Your task to perform on an android device: What is the recent news? Image 0: 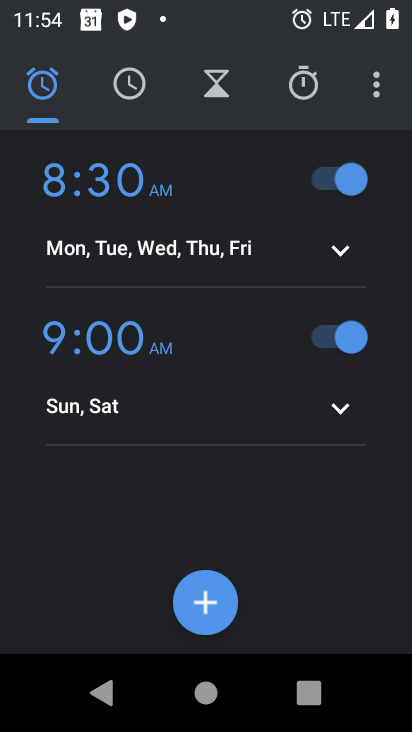
Step 0: press back button
Your task to perform on an android device: What is the recent news? Image 1: 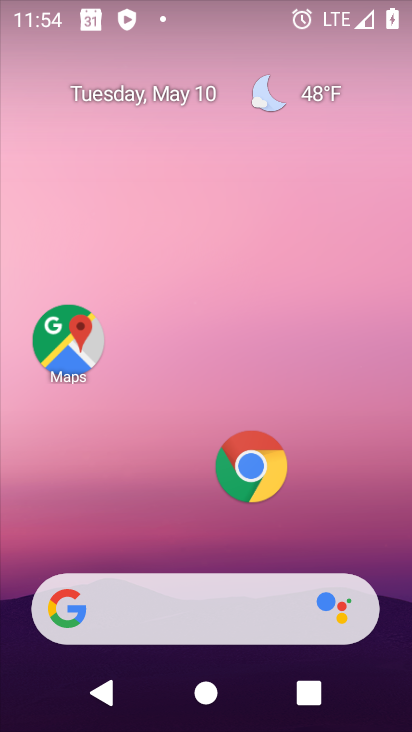
Step 1: drag from (121, 511) to (254, 58)
Your task to perform on an android device: What is the recent news? Image 2: 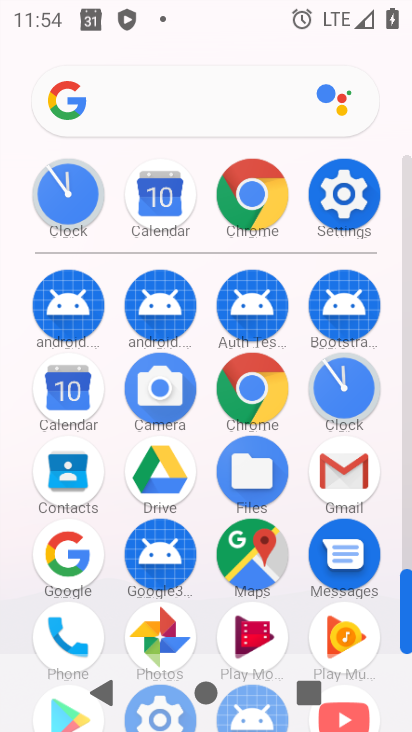
Step 2: click (127, 104)
Your task to perform on an android device: What is the recent news? Image 3: 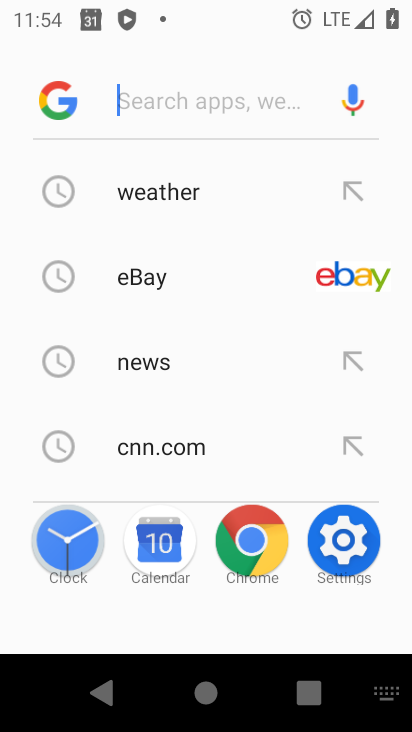
Step 3: click (142, 87)
Your task to perform on an android device: What is the recent news? Image 4: 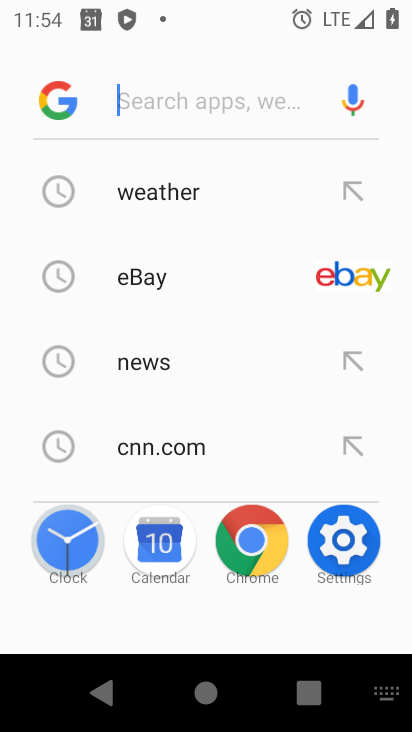
Step 4: type "recent news"
Your task to perform on an android device: What is the recent news? Image 5: 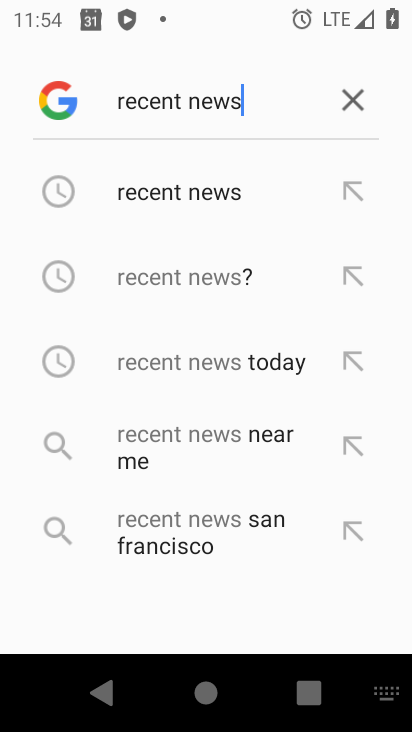
Step 5: click (164, 201)
Your task to perform on an android device: What is the recent news? Image 6: 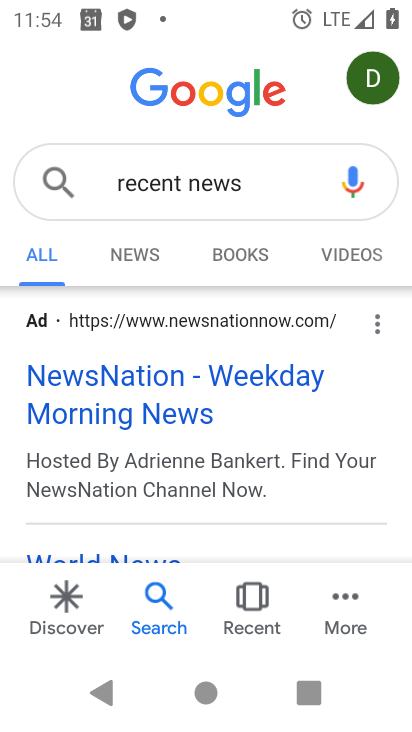
Step 6: task complete